Your task to perform on an android device: Show me the alarms in the clock app Image 0: 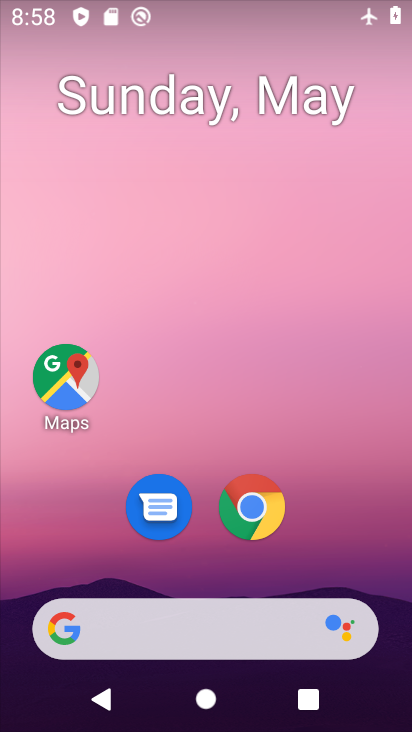
Step 0: drag from (216, 567) to (263, 22)
Your task to perform on an android device: Show me the alarms in the clock app Image 1: 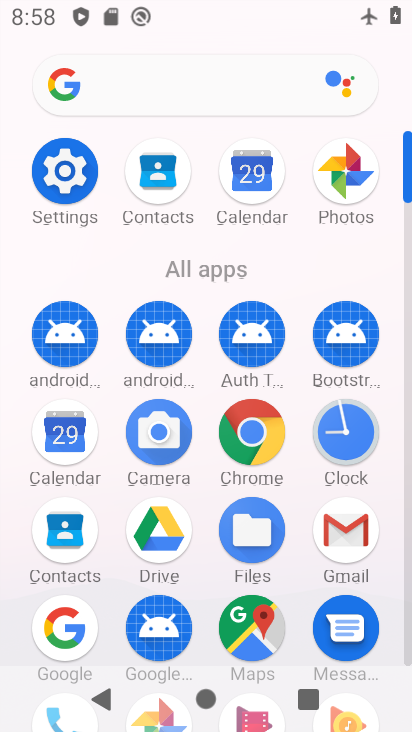
Step 1: click (348, 422)
Your task to perform on an android device: Show me the alarms in the clock app Image 2: 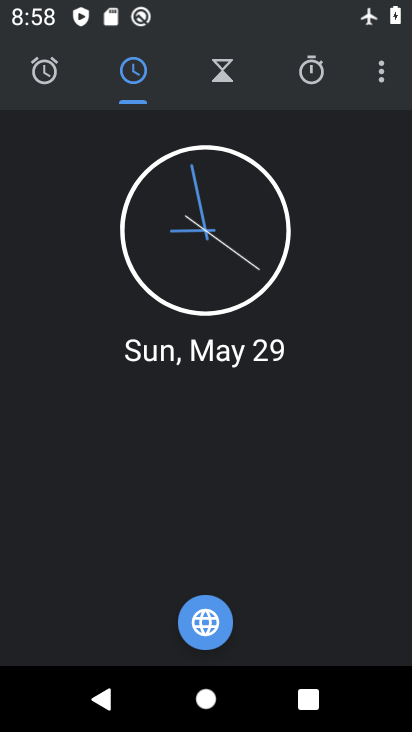
Step 2: click (50, 86)
Your task to perform on an android device: Show me the alarms in the clock app Image 3: 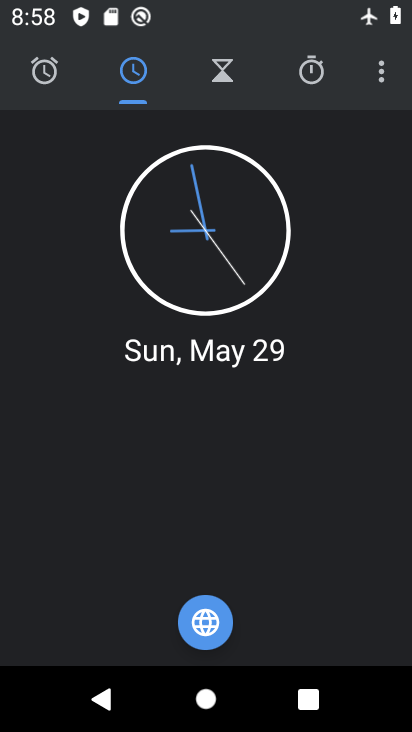
Step 3: click (51, 79)
Your task to perform on an android device: Show me the alarms in the clock app Image 4: 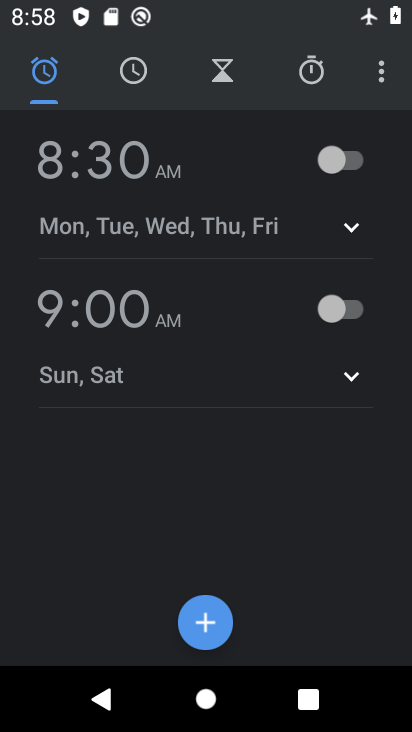
Step 4: task complete